Your task to perform on an android device: Is it going to rain this weekend? Image 0: 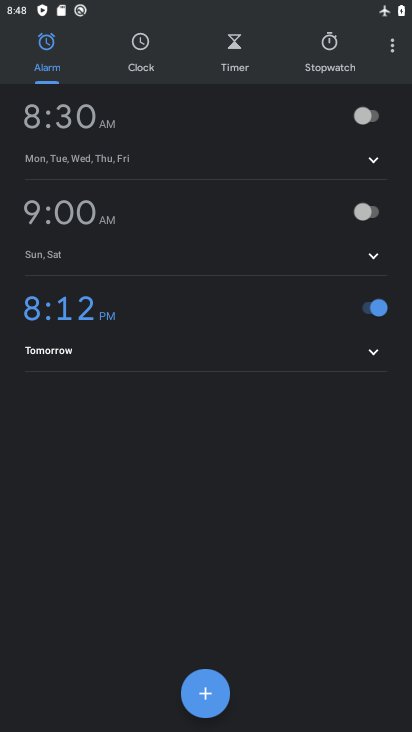
Step 0: press home button
Your task to perform on an android device: Is it going to rain this weekend? Image 1: 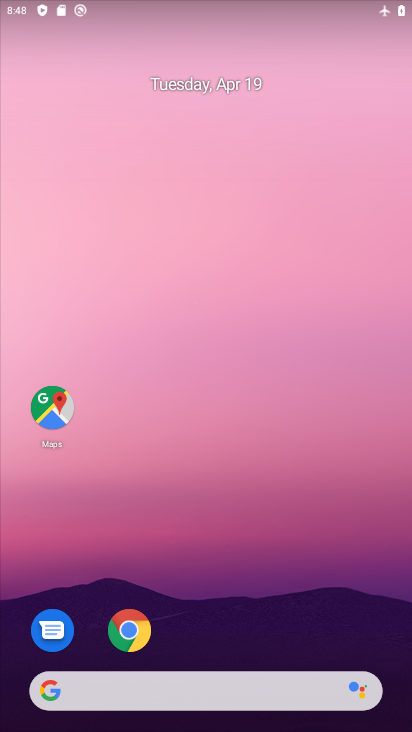
Step 1: drag from (251, 627) to (276, 28)
Your task to perform on an android device: Is it going to rain this weekend? Image 2: 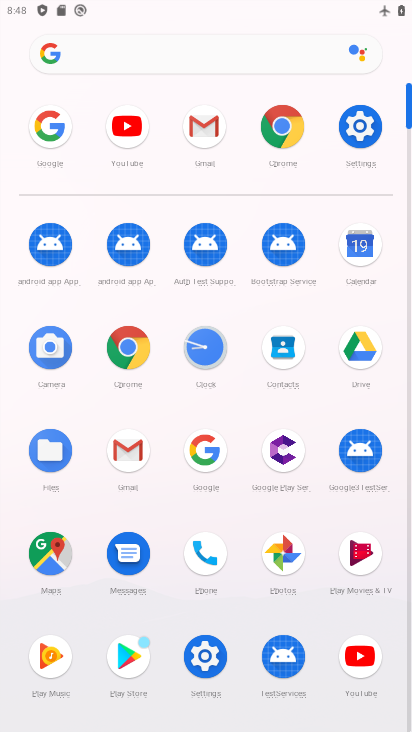
Step 2: click (225, 451)
Your task to perform on an android device: Is it going to rain this weekend? Image 3: 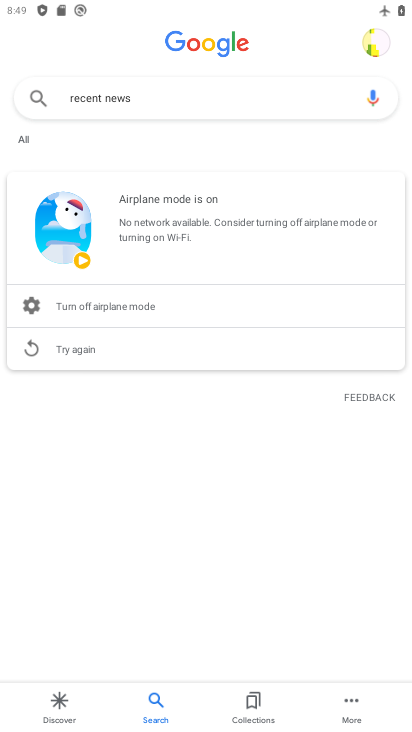
Step 3: task complete